Your task to perform on an android device: Show me the best rated 4K TV on Walmart. Image 0: 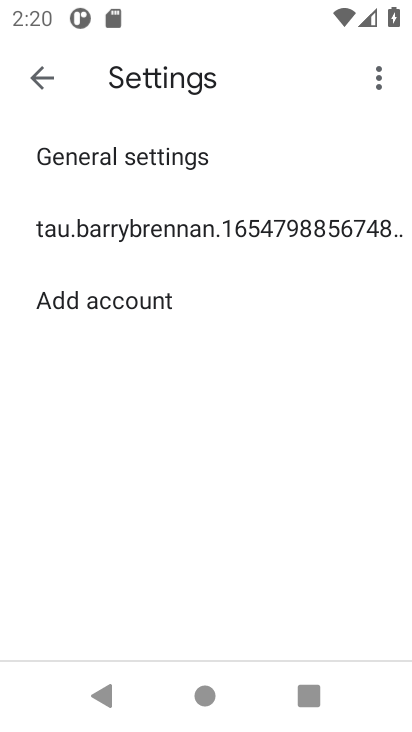
Step 0: press back button
Your task to perform on an android device: Show me the best rated 4K TV on Walmart. Image 1: 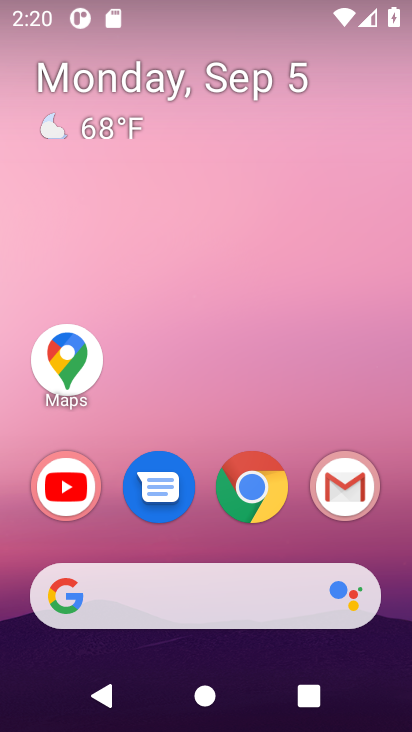
Step 1: click (241, 500)
Your task to perform on an android device: Show me the best rated 4K TV on Walmart. Image 2: 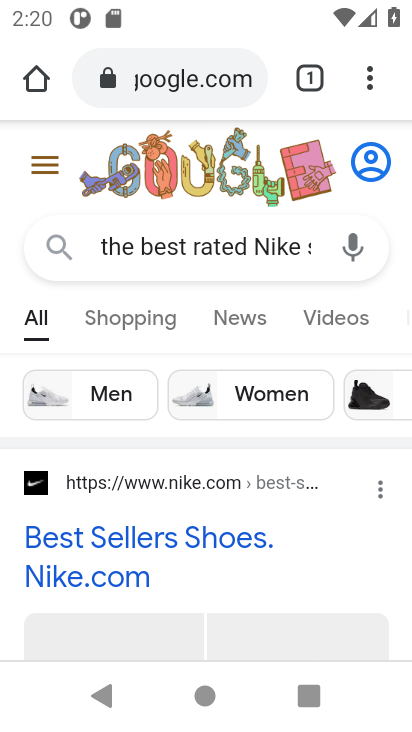
Step 2: click (155, 67)
Your task to perform on an android device: Show me the best rated 4K TV on Walmart. Image 3: 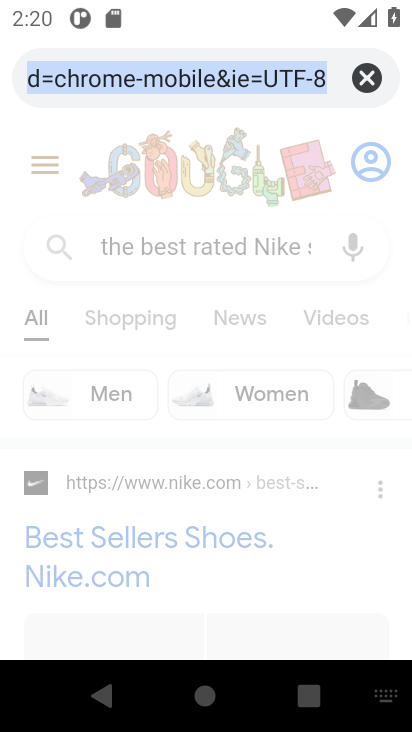
Step 3: click (365, 80)
Your task to perform on an android device: Show me the best rated 4K TV on Walmart. Image 4: 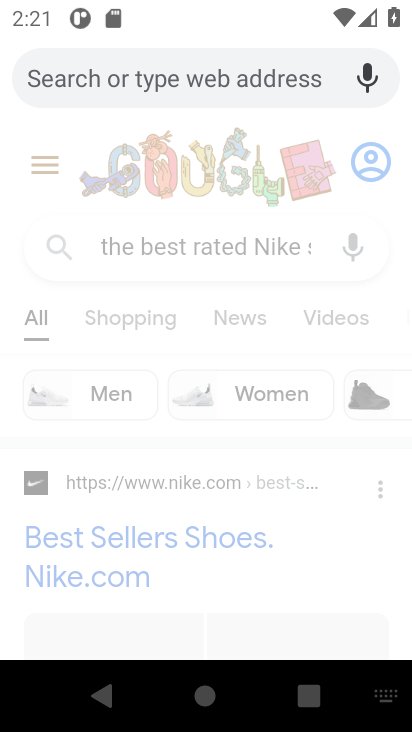
Step 4: type " the best rated 4K TV on Walmart."
Your task to perform on an android device: Show me the best rated 4K TV on Walmart. Image 5: 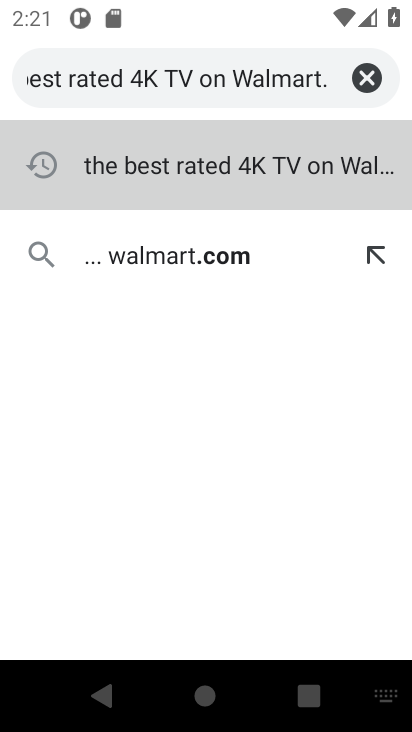
Step 5: click (245, 193)
Your task to perform on an android device: Show me the best rated 4K TV on Walmart. Image 6: 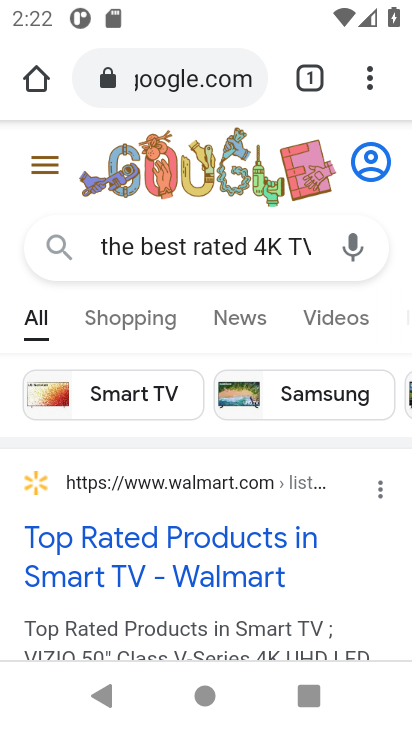
Step 6: task complete